Your task to perform on an android device: toggle data saver in the chrome app Image 0: 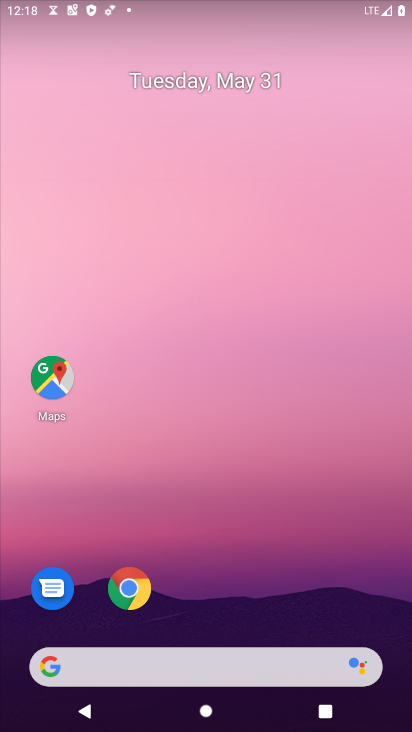
Step 0: click (123, 586)
Your task to perform on an android device: toggle data saver in the chrome app Image 1: 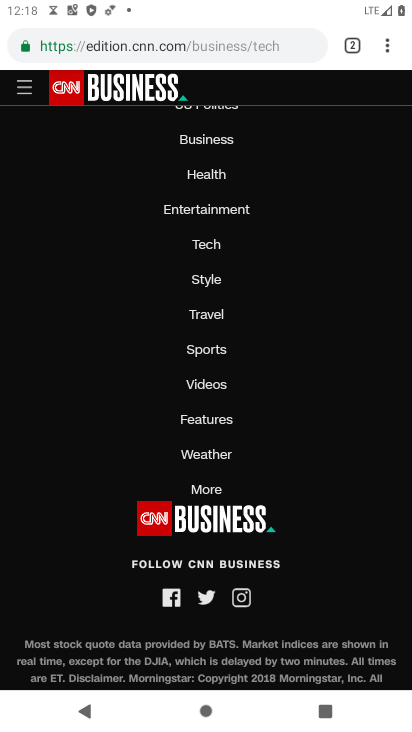
Step 1: click (383, 44)
Your task to perform on an android device: toggle data saver in the chrome app Image 2: 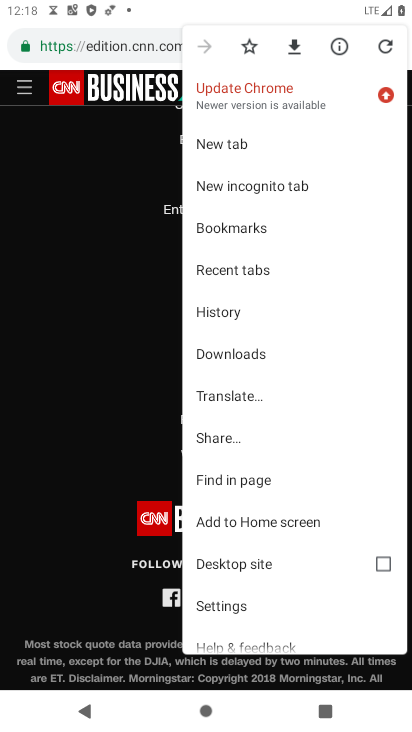
Step 2: click (254, 600)
Your task to perform on an android device: toggle data saver in the chrome app Image 3: 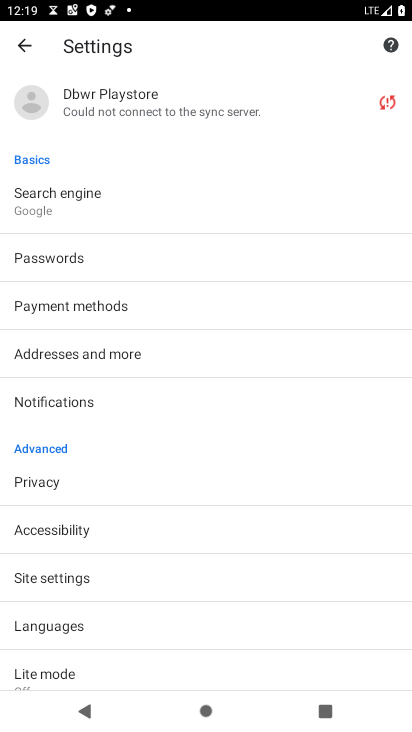
Step 3: click (102, 667)
Your task to perform on an android device: toggle data saver in the chrome app Image 4: 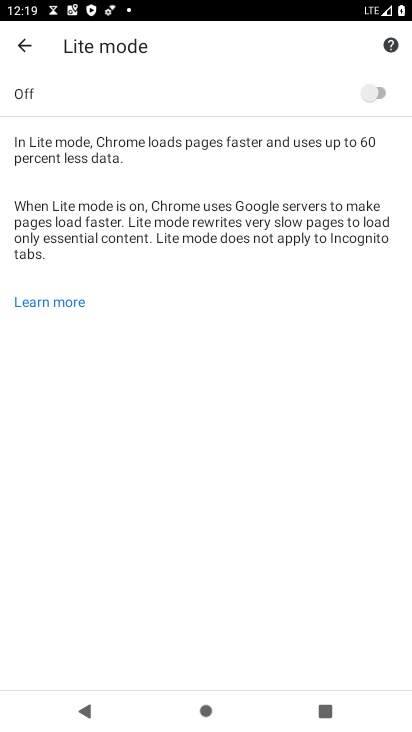
Step 4: click (381, 96)
Your task to perform on an android device: toggle data saver in the chrome app Image 5: 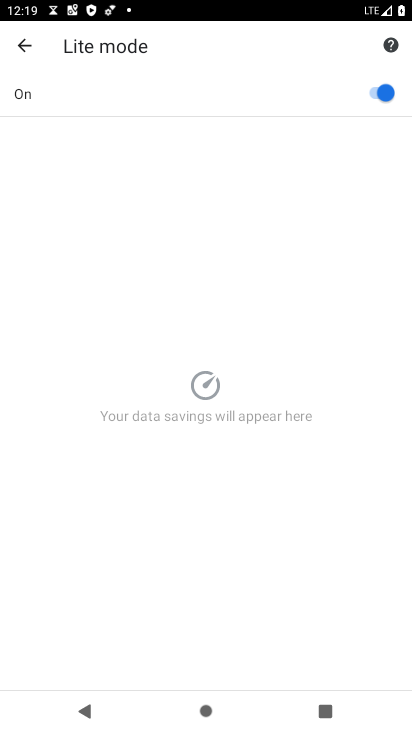
Step 5: task complete